Your task to perform on an android device: see sites visited before in the chrome app Image 0: 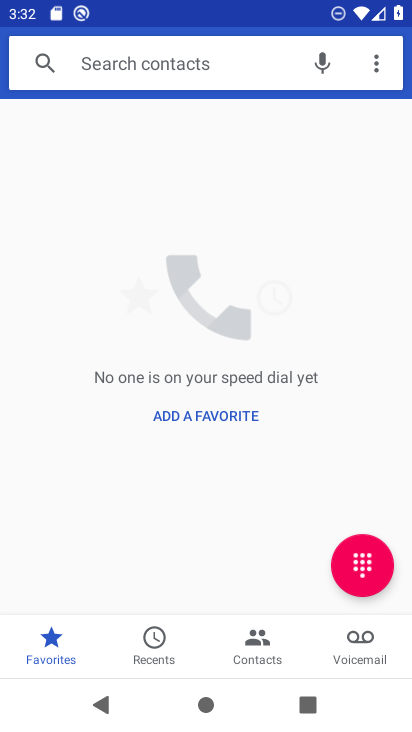
Step 0: press home button
Your task to perform on an android device: see sites visited before in the chrome app Image 1: 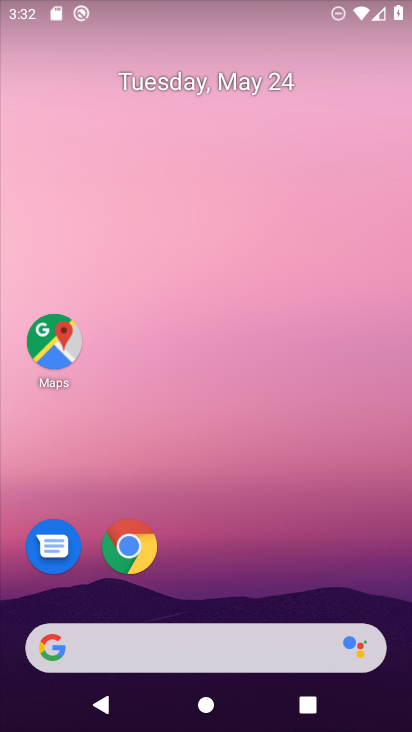
Step 1: drag from (300, 517) to (202, 89)
Your task to perform on an android device: see sites visited before in the chrome app Image 2: 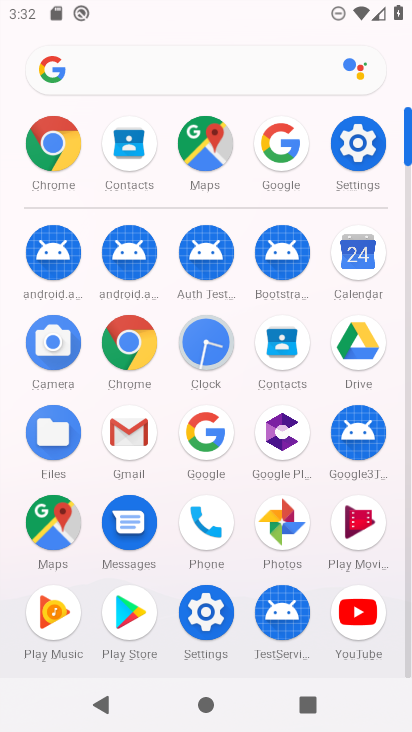
Step 2: click (136, 339)
Your task to perform on an android device: see sites visited before in the chrome app Image 3: 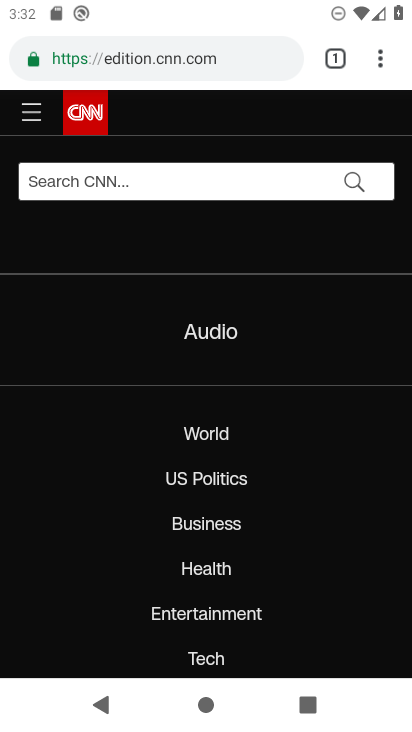
Step 3: click (385, 61)
Your task to perform on an android device: see sites visited before in the chrome app Image 4: 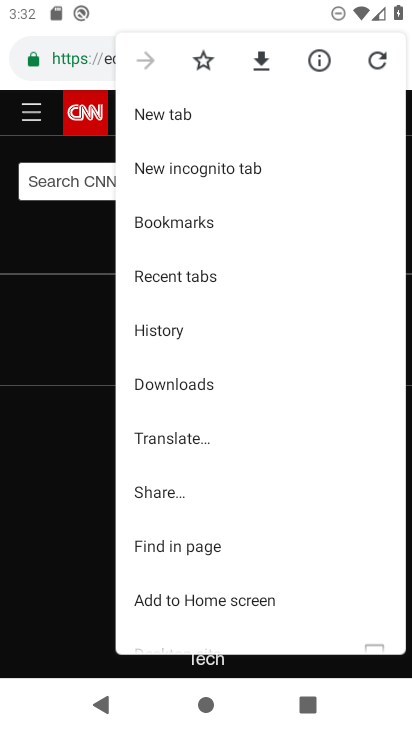
Step 4: click (197, 338)
Your task to perform on an android device: see sites visited before in the chrome app Image 5: 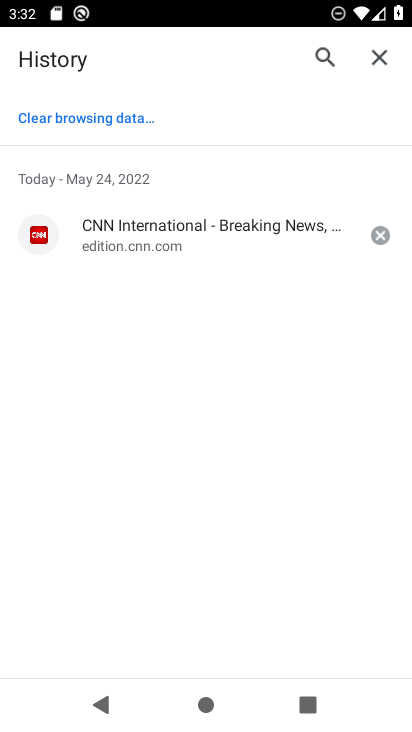
Step 5: task complete